Your task to perform on an android device: Go to Reddit.com Image 0: 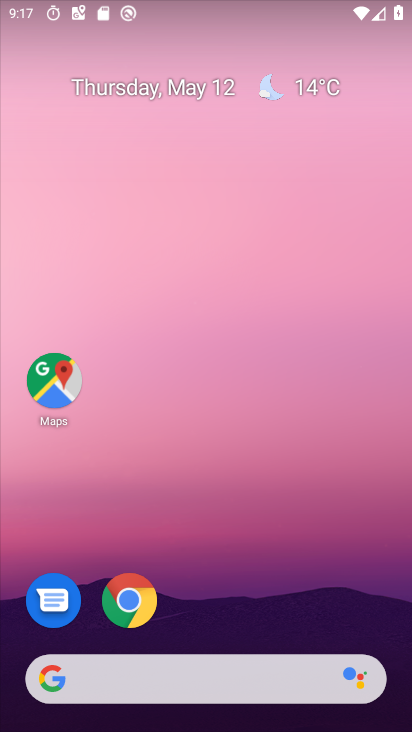
Step 0: drag from (350, 694) to (190, 91)
Your task to perform on an android device: Go to Reddit.com Image 1: 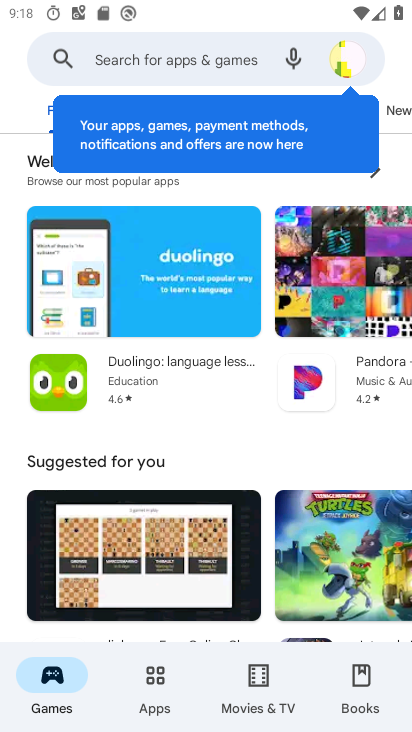
Step 1: press back button
Your task to perform on an android device: Go to Reddit.com Image 2: 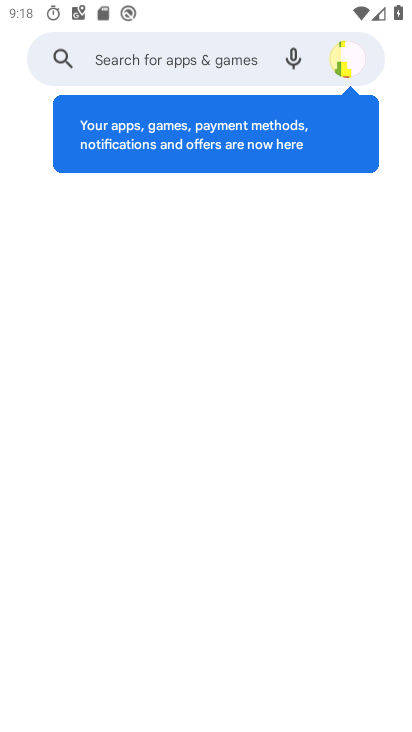
Step 2: press back button
Your task to perform on an android device: Go to Reddit.com Image 3: 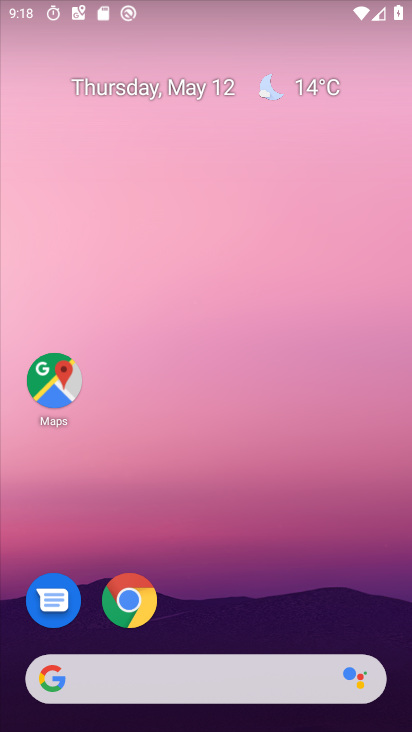
Step 3: click (112, 79)
Your task to perform on an android device: Go to Reddit.com Image 4: 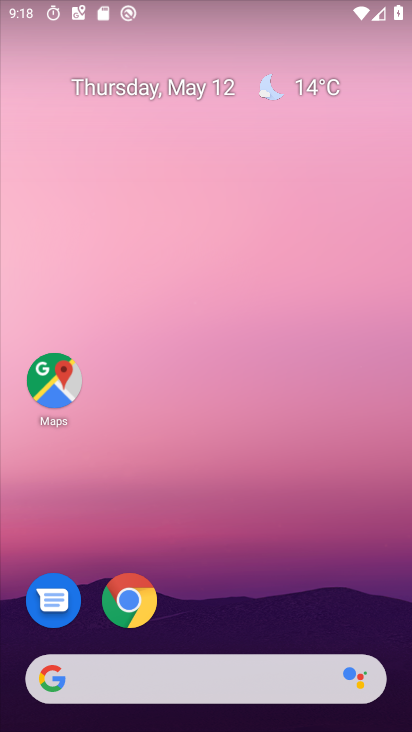
Step 4: drag from (262, 622) to (158, 10)
Your task to perform on an android device: Go to Reddit.com Image 5: 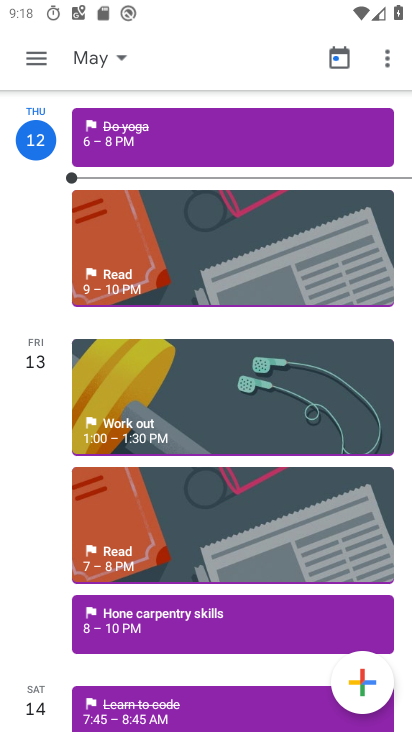
Step 5: press home button
Your task to perform on an android device: Go to Reddit.com Image 6: 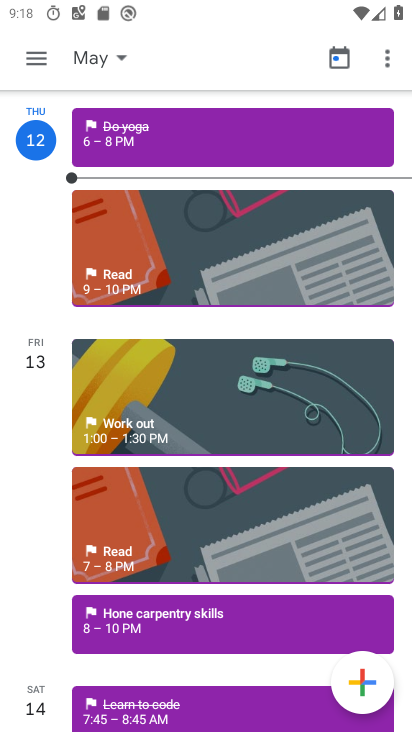
Step 6: press home button
Your task to perform on an android device: Go to Reddit.com Image 7: 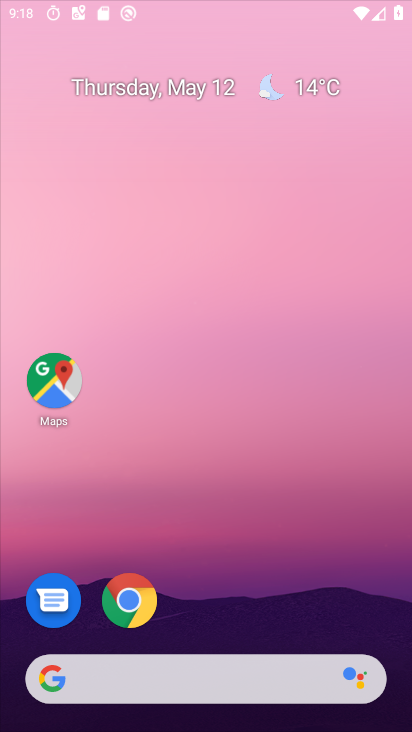
Step 7: press home button
Your task to perform on an android device: Go to Reddit.com Image 8: 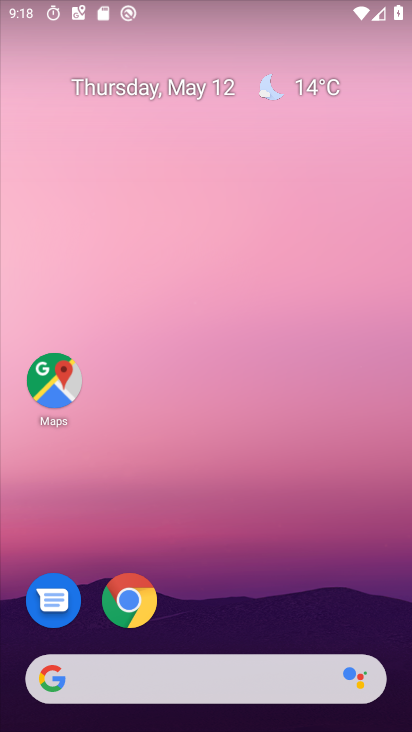
Step 8: drag from (186, 569) to (30, 57)
Your task to perform on an android device: Go to Reddit.com Image 9: 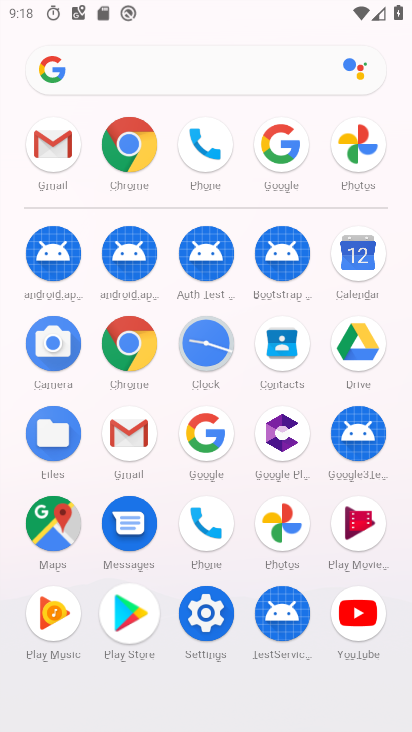
Step 9: click (121, 142)
Your task to perform on an android device: Go to Reddit.com Image 10: 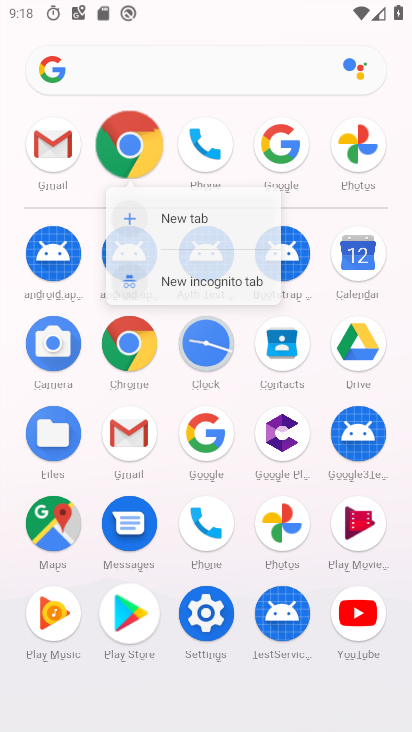
Step 10: click (121, 142)
Your task to perform on an android device: Go to Reddit.com Image 11: 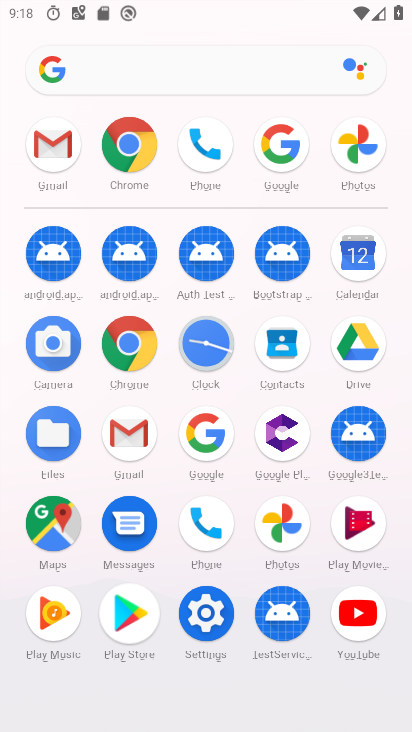
Step 11: click (128, 141)
Your task to perform on an android device: Go to Reddit.com Image 12: 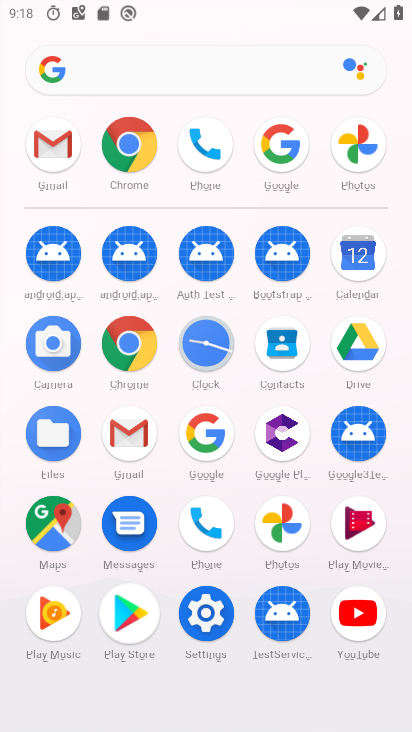
Step 12: click (128, 141)
Your task to perform on an android device: Go to Reddit.com Image 13: 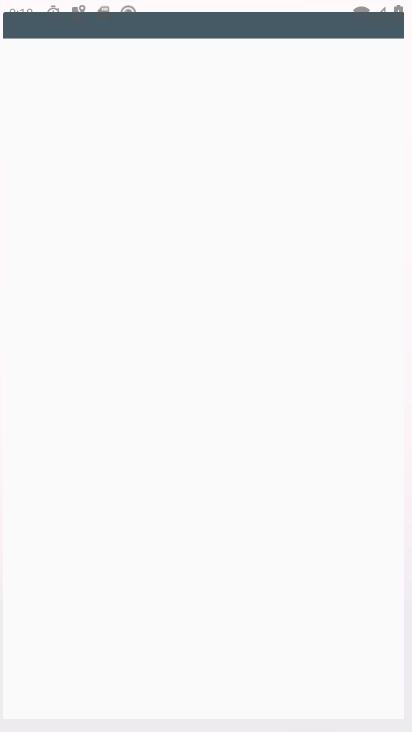
Step 13: click (128, 141)
Your task to perform on an android device: Go to Reddit.com Image 14: 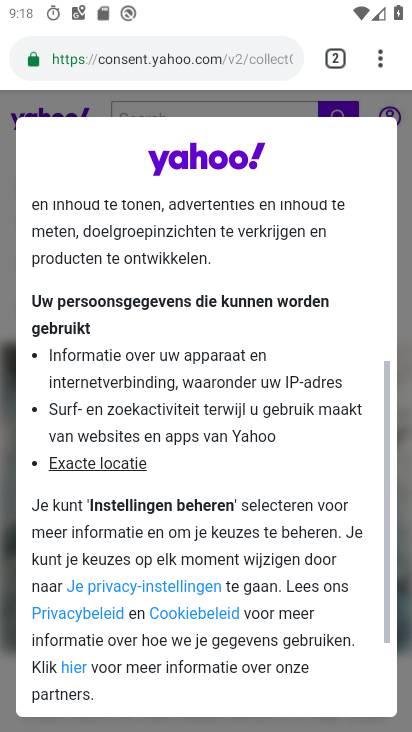
Step 14: click (378, 57)
Your task to perform on an android device: Go to Reddit.com Image 15: 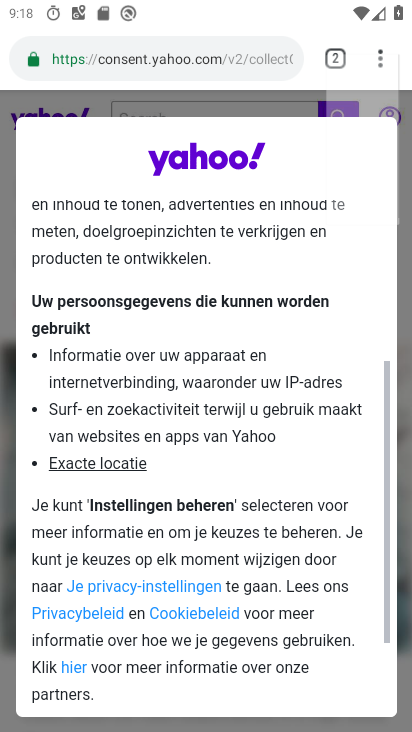
Step 15: click (378, 57)
Your task to perform on an android device: Go to Reddit.com Image 16: 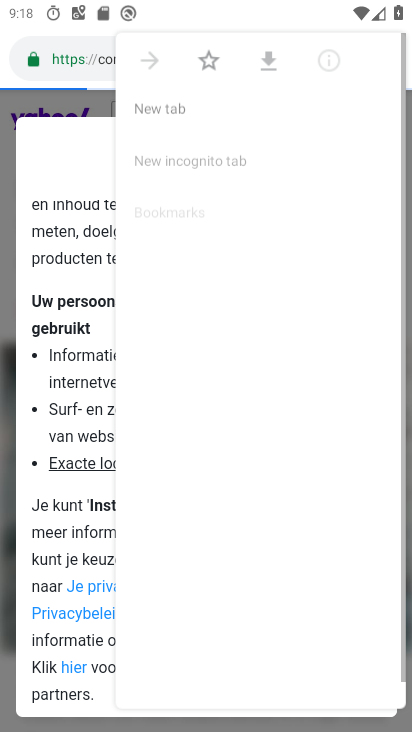
Step 16: click (377, 59)
Your task to perform on an android device: Go to Reddit.com Image 17: 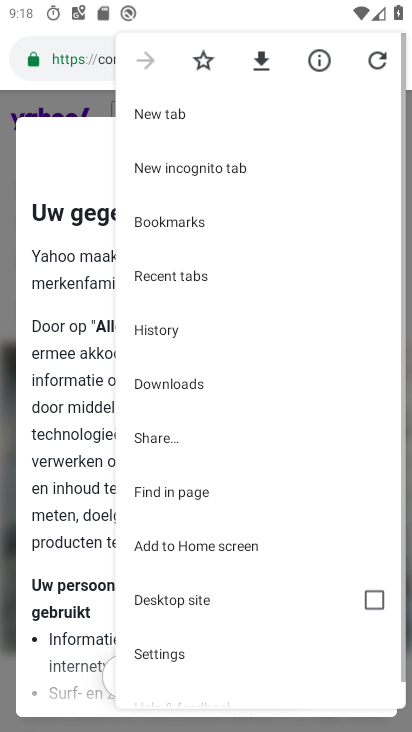
Step 17: drag from (377, 57) to (144, 112)
Your task to perform on an android device: Go to Reddit.com Image 18: 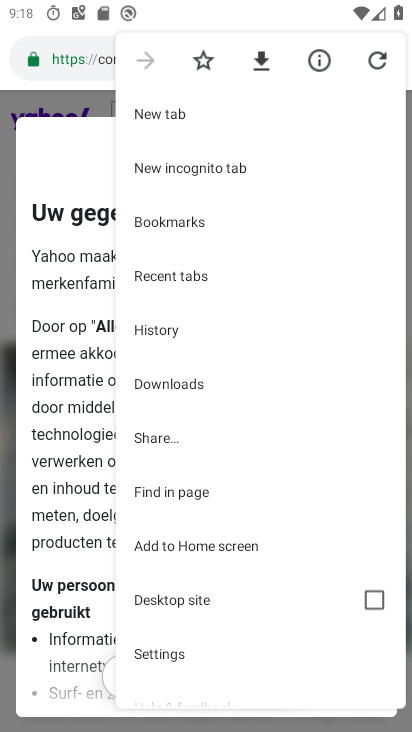
Step 18: click (144, 112)
Your task to perform on an android device: Go to Reddit.com Image 19: 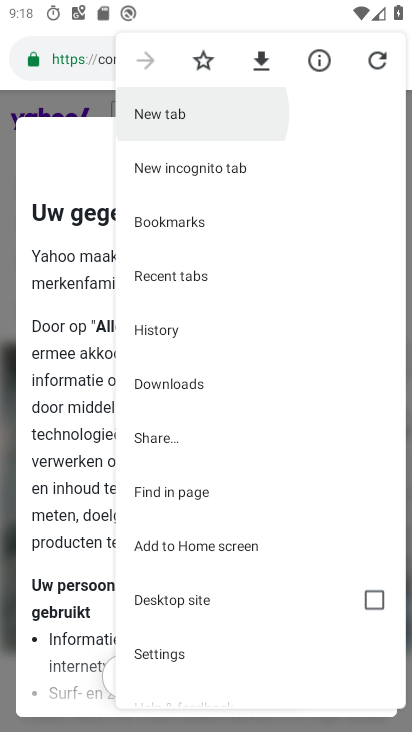
Step 19: click (147, 110)
Your task to perform on an android device: Go to Reddit.com Image 20: 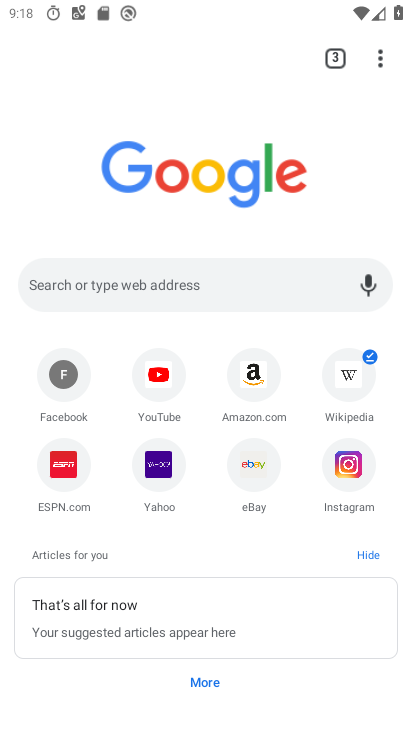
Step 20: click (49, 286)
Your task to perform on an android device: Go to Reddit.com Image 21: 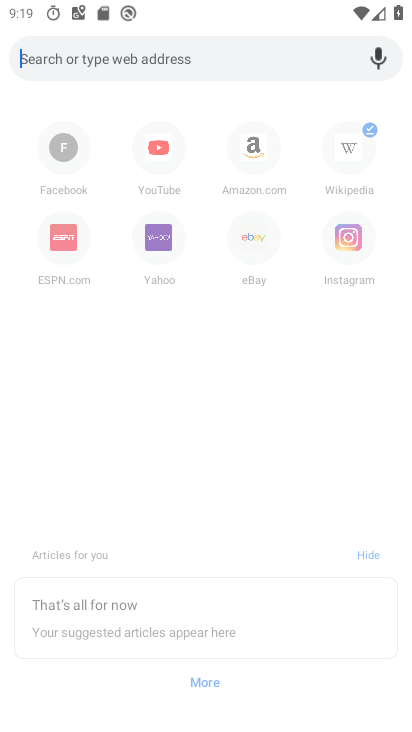
Step 21: click (46, 276)
Your task to perform on an android device: Go to Reddit.com Image 22: 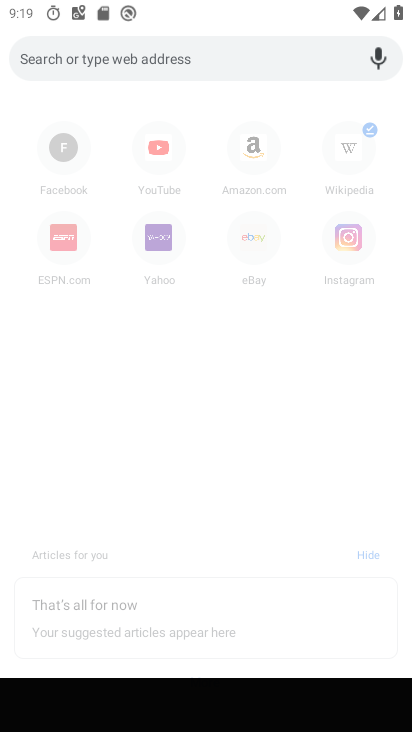
Step 22: click (46, 276)
Your task to perform on an android device: Go to Reddit.com Image 23: 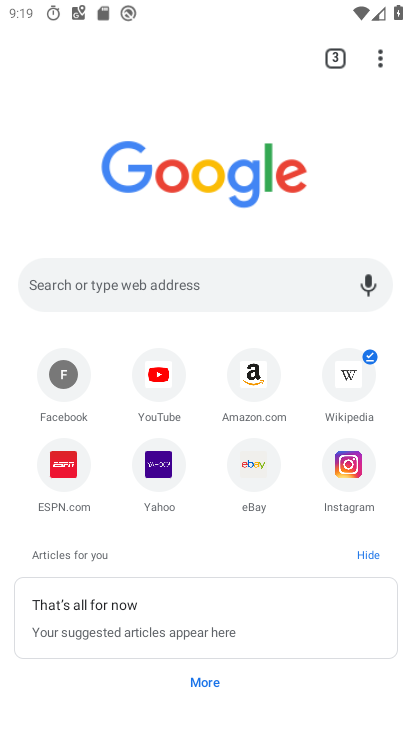
Step 23: click (63, 277)
Your task to perform on an android device: Go to Reddit.com Image 24: 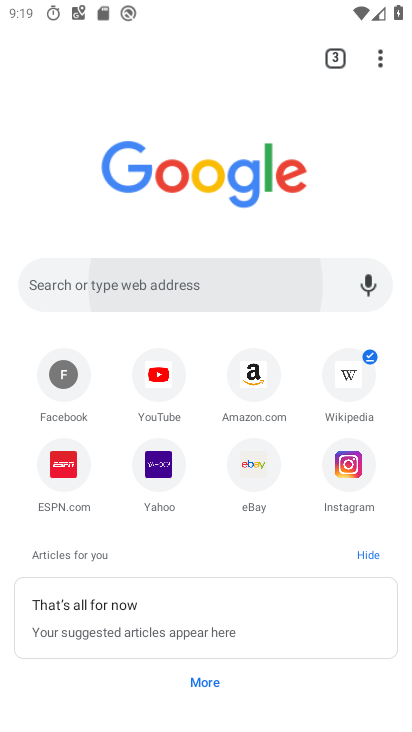
Step 24: click (63, 277)
Your task to perform on an android device: Go to Reddit.com Image 25: 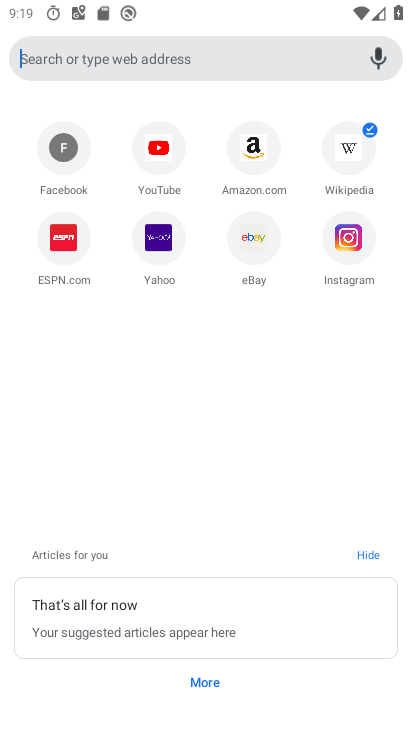
Step 25: click (63, 278)
Your task to perform on an android device: Go to Reddit.com Image 26: 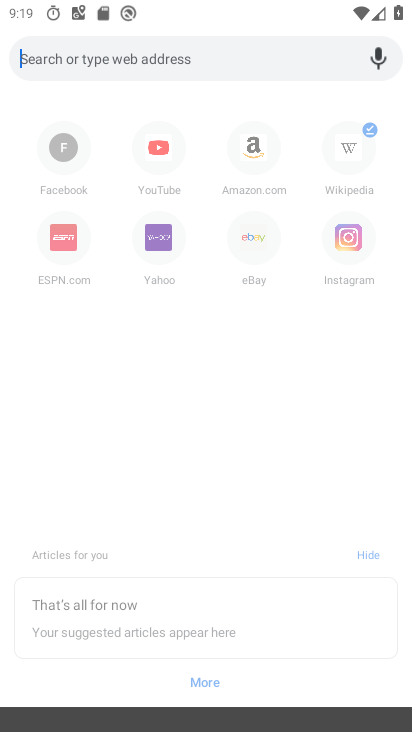
Step 26: click (63, 278)
Your task to perform on an android device: Go to Reddit.com Image 27: 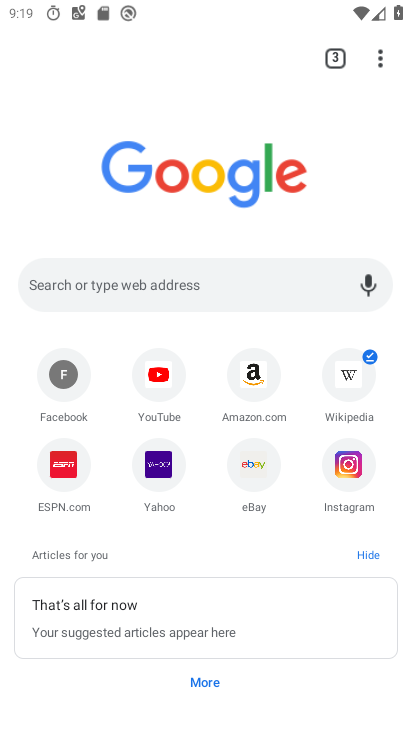
Step 27: click (46, 287)
Your task to perform on an android device: Go to Reddit.com Image 28: 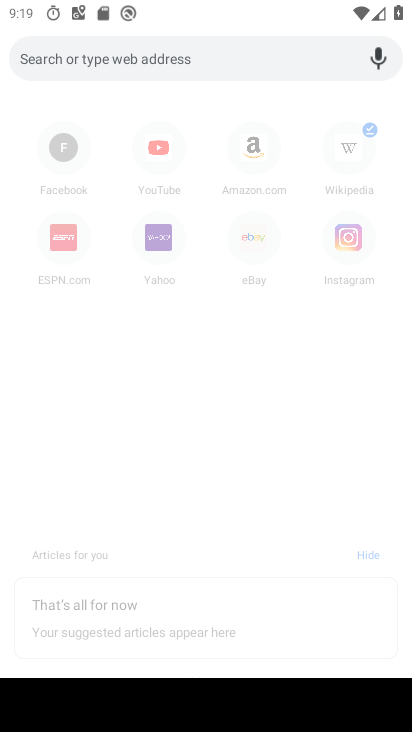
Step 28: type "reddit.com"
Your task to perform on an android device: Go to Reddit.com Image 29: 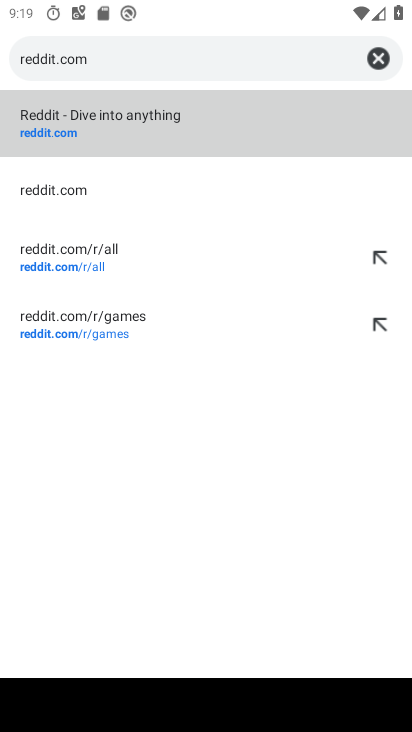
Step 29: click (37, 133)
Your task to perform on an android device: Go to Reddit.com Image 30: 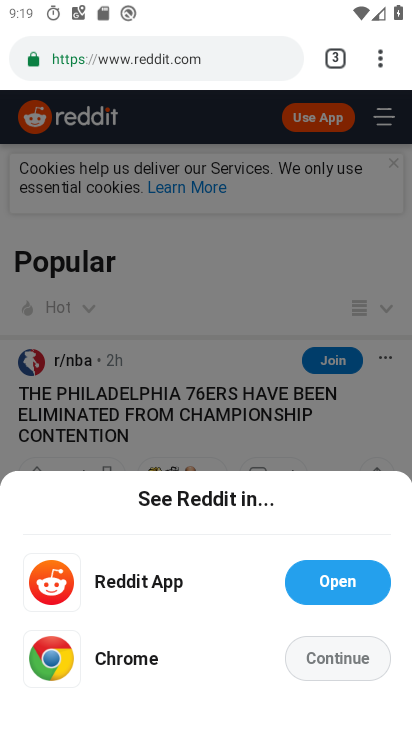
Step 30: task complete